Your task to perform on an android device: turn off airplane mode Image 0: 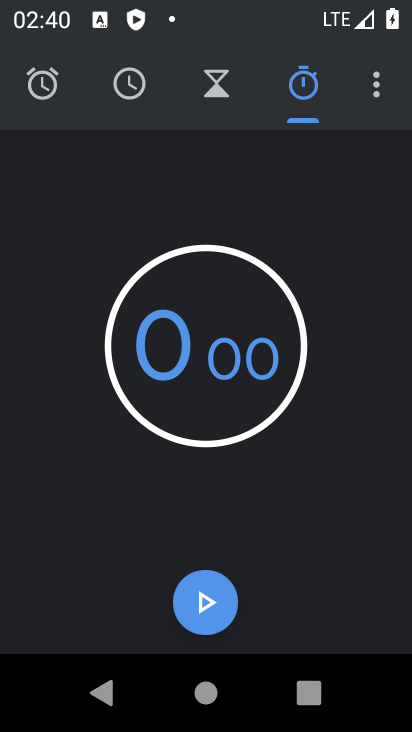
Step 0: press home button
Your task to perform on an android device: turn off airplane mode Image 1: 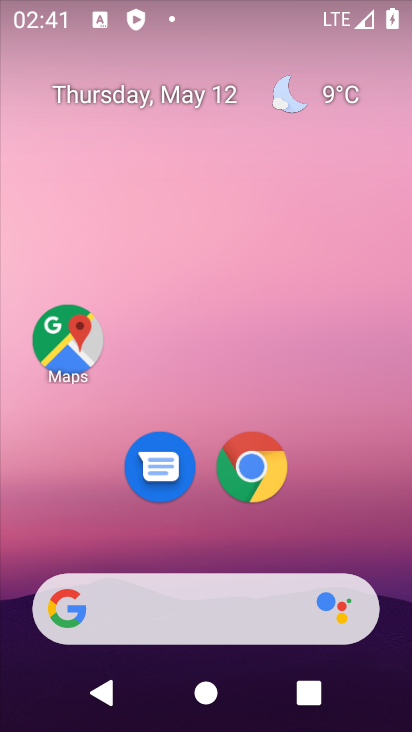
Step 1: drag from (329, 508) to (329, 217)
Your task to perform on an android device: turn off airplane mode Image 2: 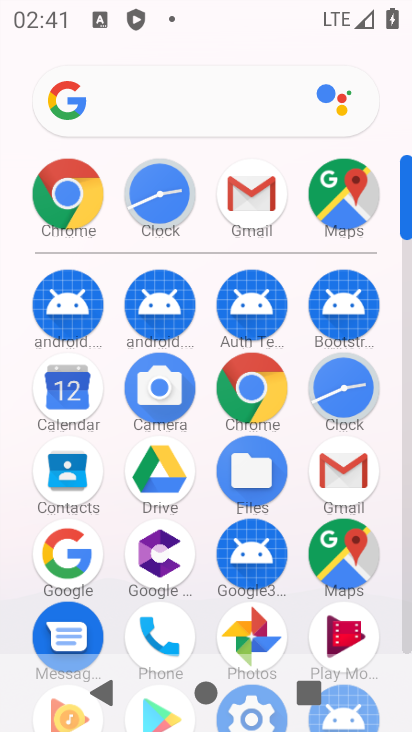
Step 2: drag from (225, 553) to (273, 253)
Your task to perform on an android device: turn off airplane mode Image 3: 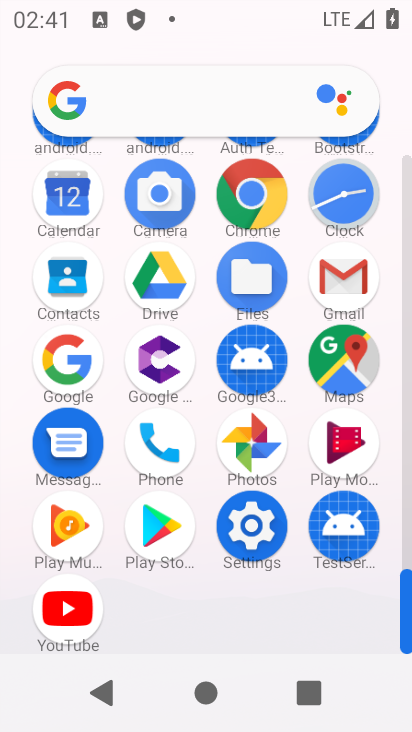
Step 3: click (259, 519)
Your task to perform on an android device: turn off airplane mode Image 4: 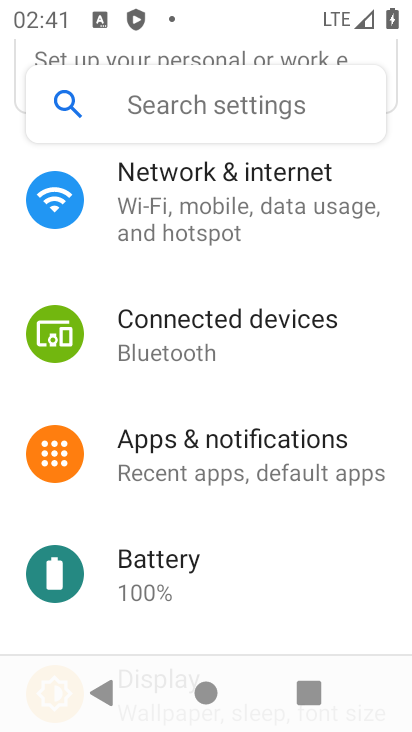
Step 4: click (181, 180)
Your task to perform on an android device: turn off airplane mode Image 5: 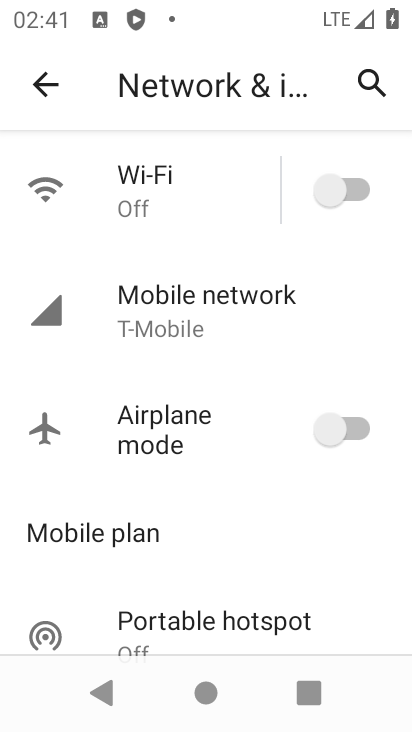
Step 5: task complete